Your task to perform on an android device: Turn off the flashlight Image 0: 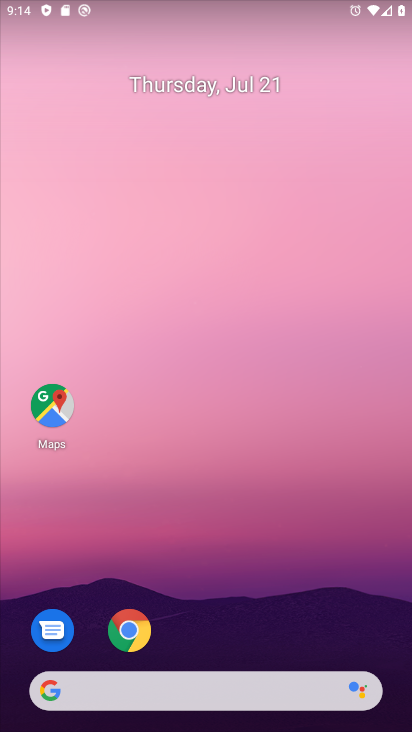
Step 0: drag from (205, 719) to (195, 415)
Your task to perform on an android device: Turn off the flashlight Image 1: 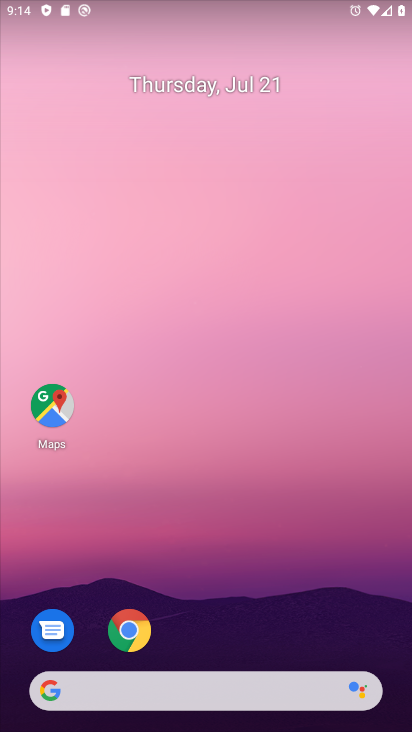
Step 1: drag from (242, 727) to (246, 259)
Your task to perform on an android device: Turn off the flashlight Image 2: 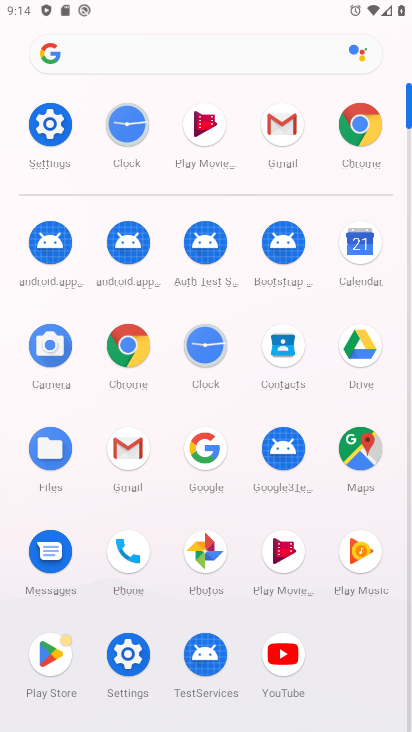
Step 2: click (44, 125)
Your task to perform on an android device: Turn off the flashlight Image 3: 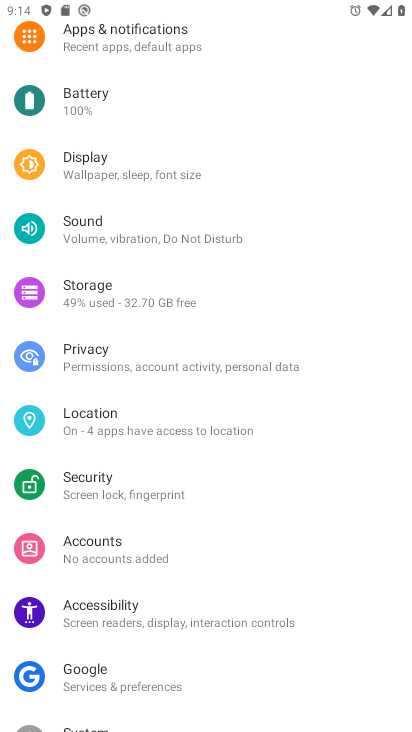
Step 3: task complete